Your task to perform on an android device: turn off improve location accuracy Image 0: 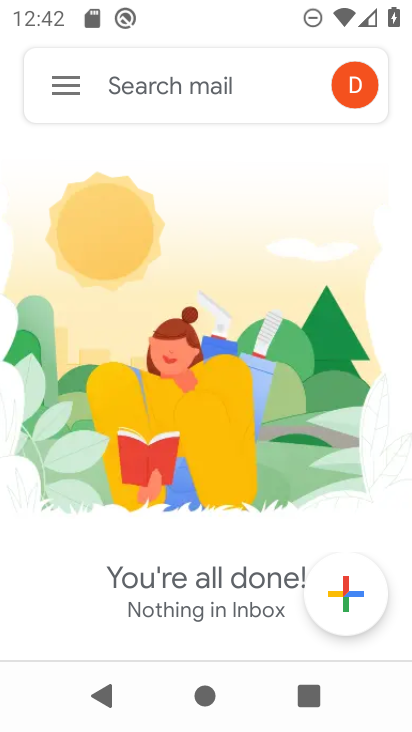
Step 0: press home button
Your task to perform on an android device: turn off improve location accuracy Image 1: 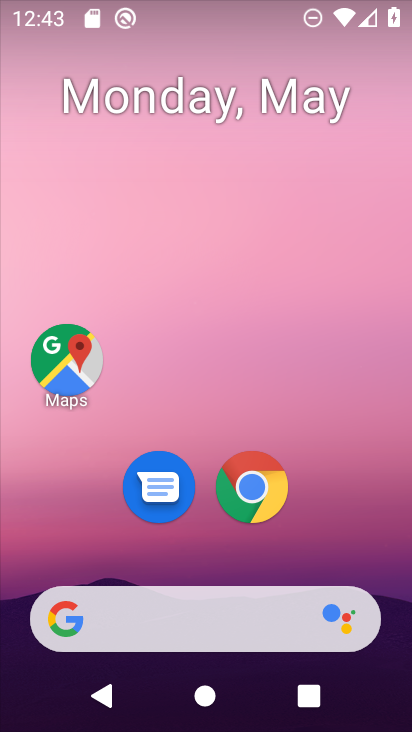
Step 1: drag from (348, 544) to (263, 87)
Your task to perform on an android device: turn off improve location accuracy Image 2: 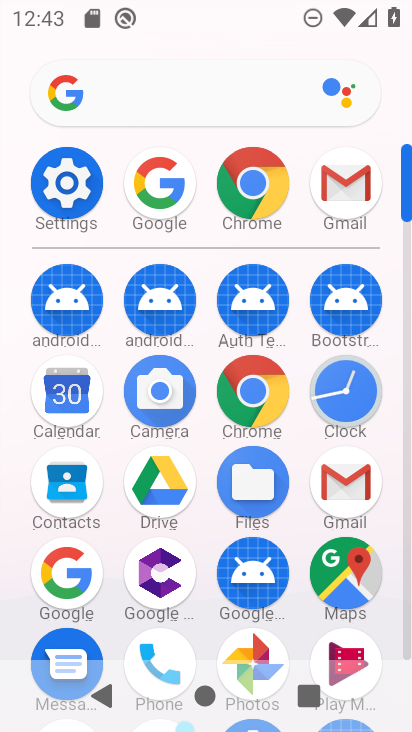
Step 2: click (68, 183)
Your task to perform on an android device: turn off improve location accuracy Image 3: 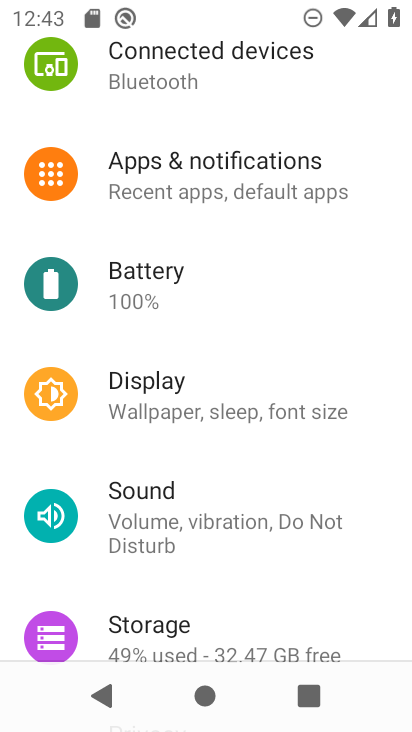
Step 3: drag from (212, 462) to (233, 375)
Your task to perform on an android device: turn off improve location accuracy Image 4: 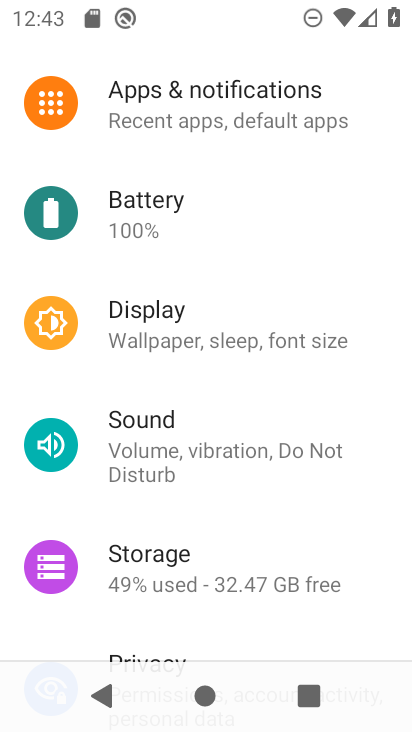
Step 4: drag from (201, 501) to (226, 411)
Your task to perform on an android device: turn off improve location accuracy Image 5: 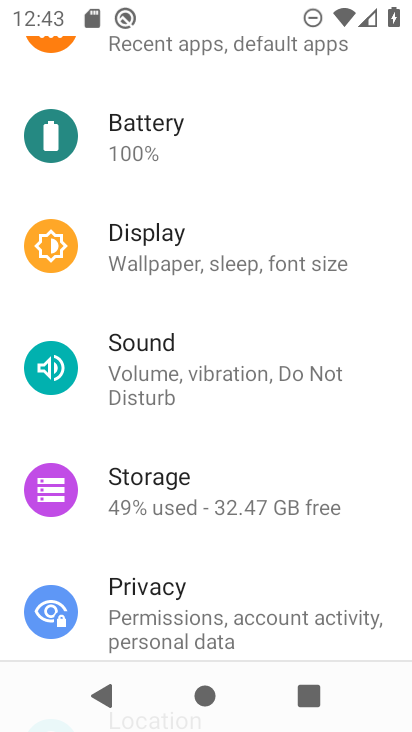
Step 5: drag from (230, 439) to (252, 352)
Your task to perform on an android device: turn off improve location accuracy Image 6: 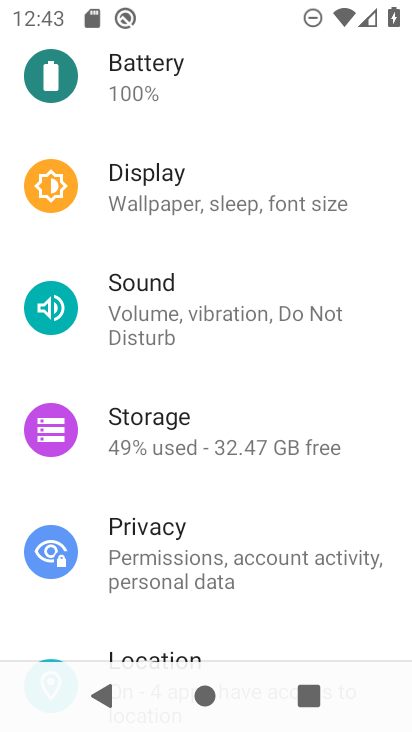
Step 6: drag from (233, 390) to (282, 296)
Your task to perform on an android device: turn off improve location accuracy Image 7: 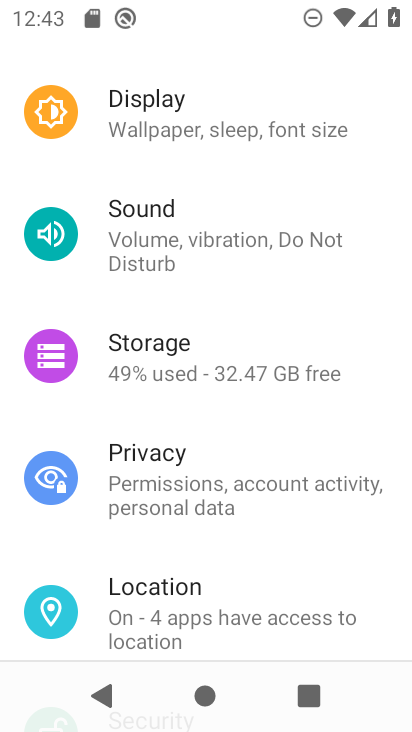
Step 7: drag from (204, 414) to (252, 311)
Your task to perform on an android device: turn off improve location accuracy Image 8: 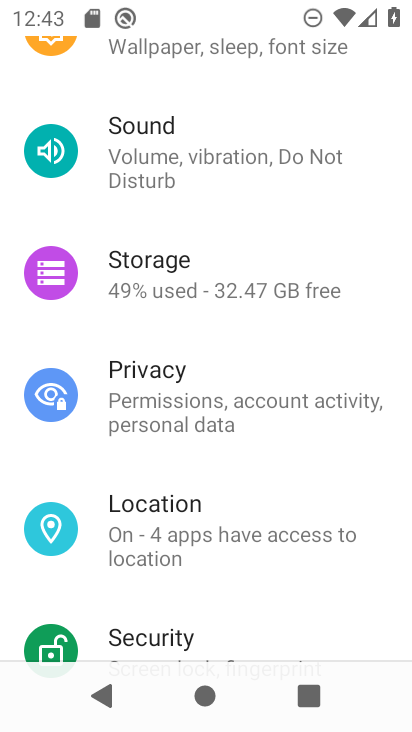
Step 8: drag from (232, 444) to (275, 353)
Your task to perform on an android device: turn off improve location accuracy Image 9: 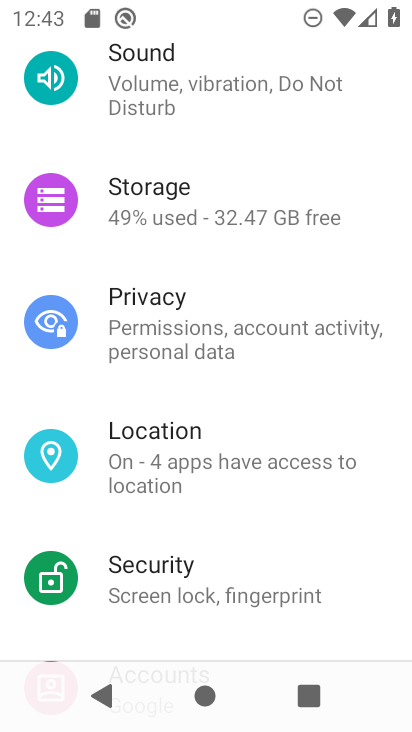
Step 9: click (195, 465)
Your task to perform on an android device: turn off improve location accuracy Image 10: 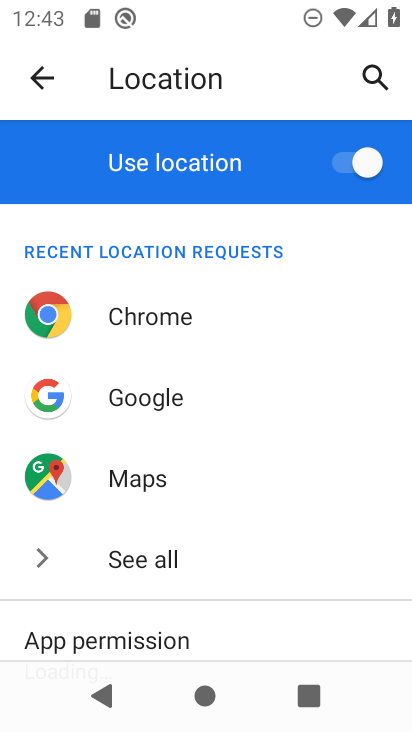
Step 10: drag from (212, 542) to (223, 435)
Your task to perform on an android device: turn off improve location accuracy Image 11: 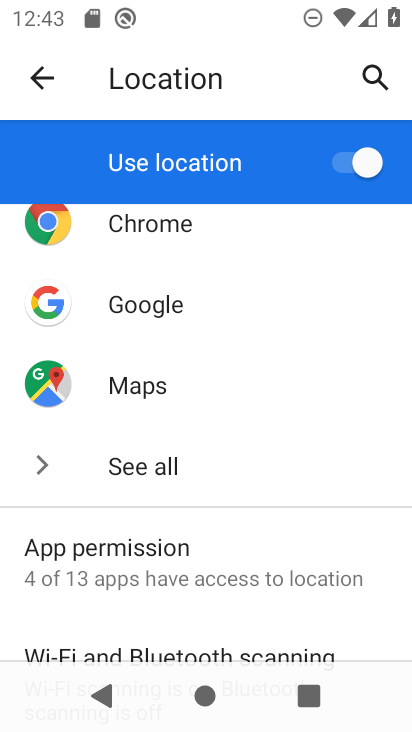
Step 11: drag from (229, 545) to (251, 474)
Your task to perform on an android device: turn off improve location accuracy Image 12: 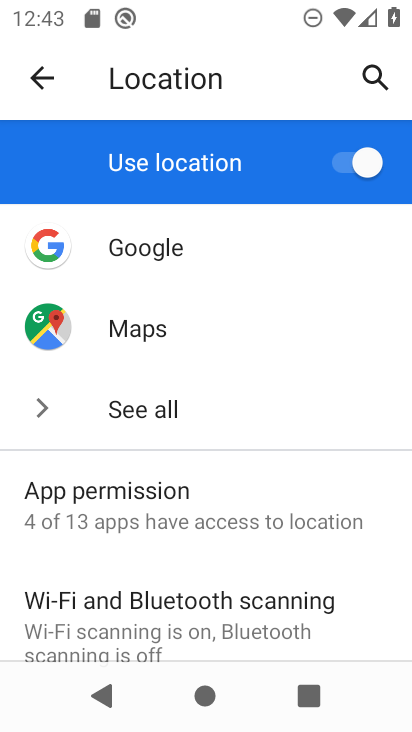
Step 12: drag from (268, 561) to (308, 471)
Your task to perform on an android device: turn off improve location accuracy Image 13: 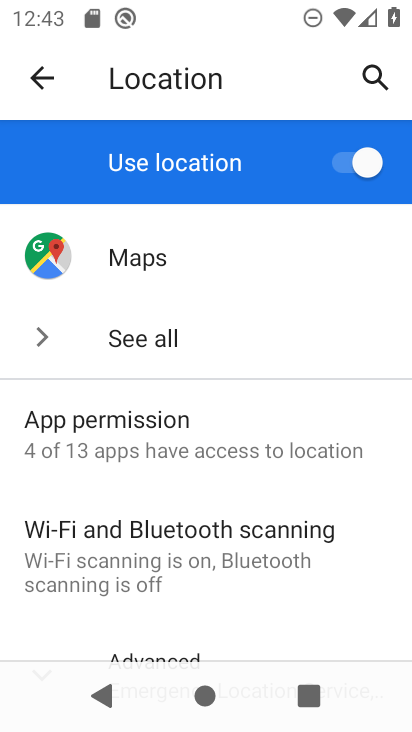
Step 13: drag from (199, 591) to (263, 497)
Your task to perform on an android device: turn off improve location accuracy Image 14: 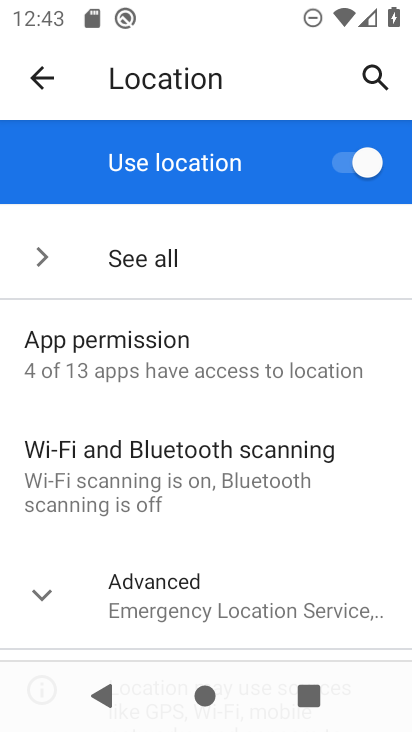
Step 14: click (240, 617)
Your task to perform on an android device: turn off improve location accuracy Image 15: 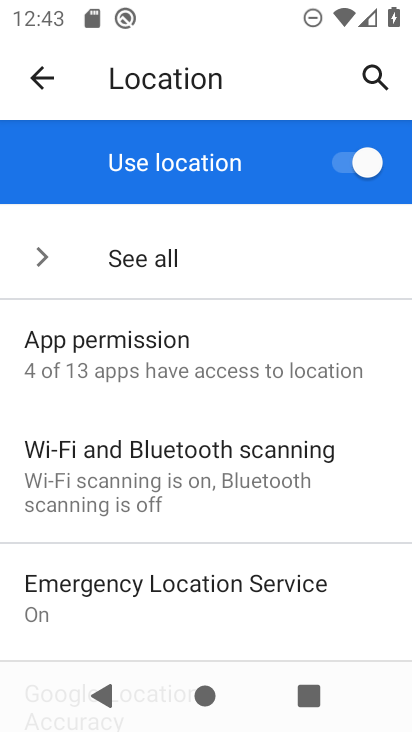
Step 15: drag from (211, 607) to (230, 531)
Your task to perform on an android device: turn off improve location accuracy Image 16: 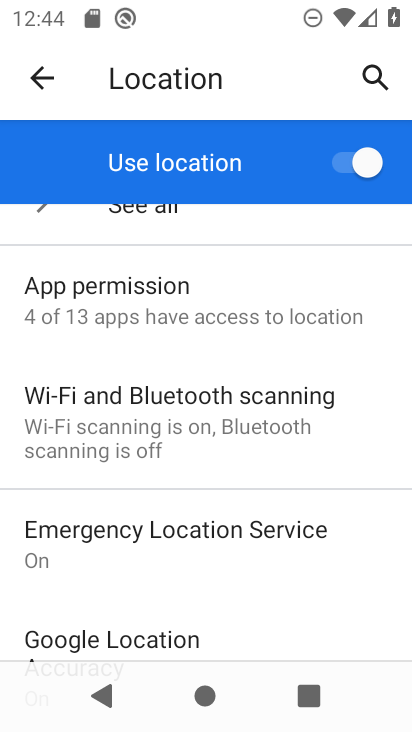
Step 16: drag from (196, 580) to (198, 510)
Your task to perform on an android device: turn off improve location accuracy Image 17: 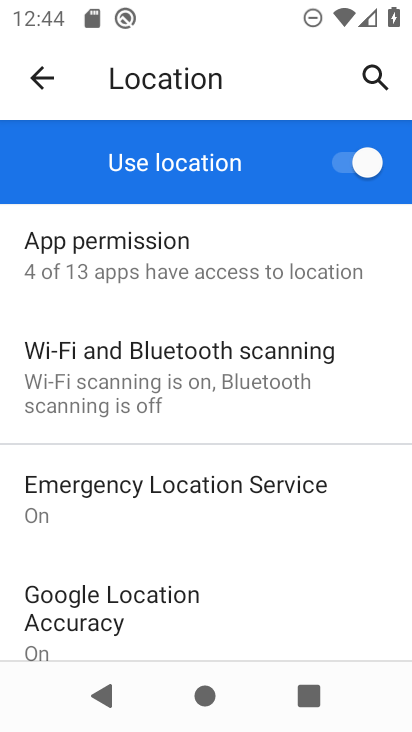
Step 17: drag from (149, 557) to (190, 467)
Your task to perform on an android device: turn off improve location accuracy Image 18: 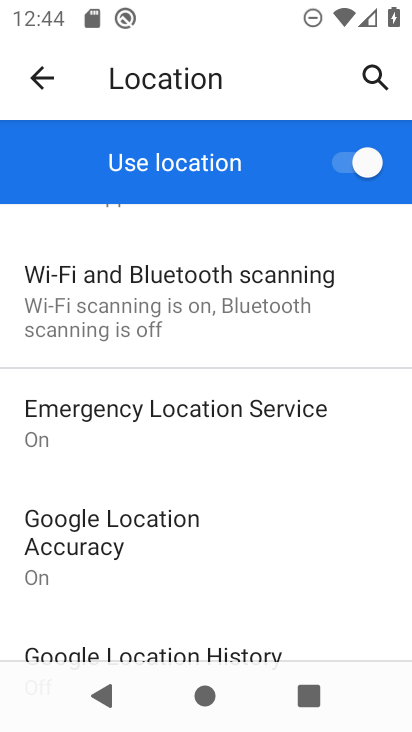
Step 18: drag from (158, 589) to (215, 479)
Your task to perform on an android device: turn off improve location accuracy Image 19: 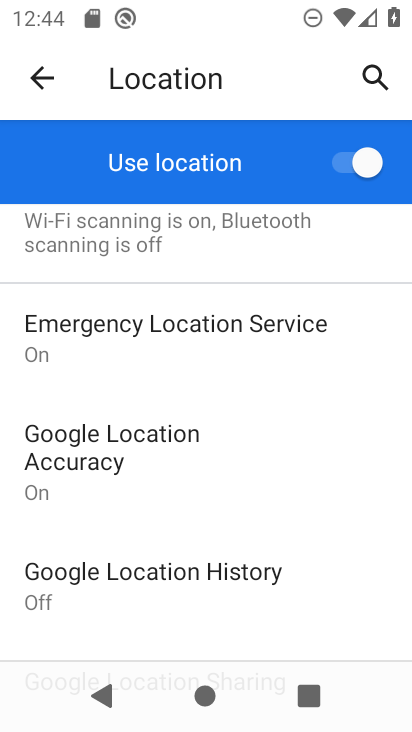
Step 19: click (130, 444)
Your task to perform on an android device: turn off improve location accuracy Image 20: 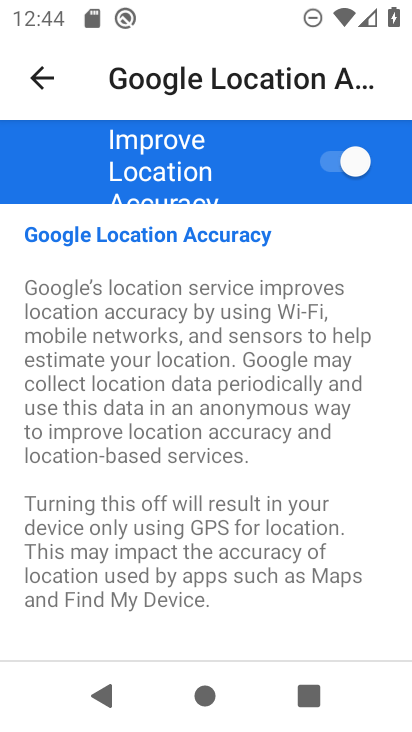
Step 20: click (342, 158)
Your task to perform on an android device: turn off improve location accuracy Image 21: 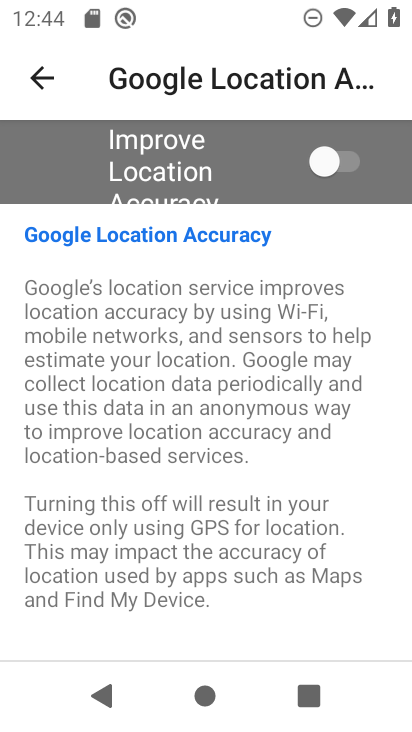
Step 21: task complete